Your task to perform on an android device: Open the calendar app, open the side menu, and click the "Day" option Image 0: 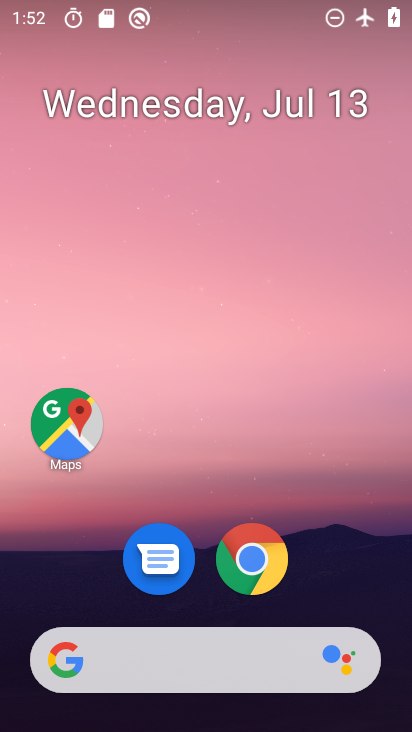
Step 0: drag from (191, 657) to (225, 139)
Your task to perform on an android device: Open the calendar app, open the side menu, and click the "Day" option Image 1: 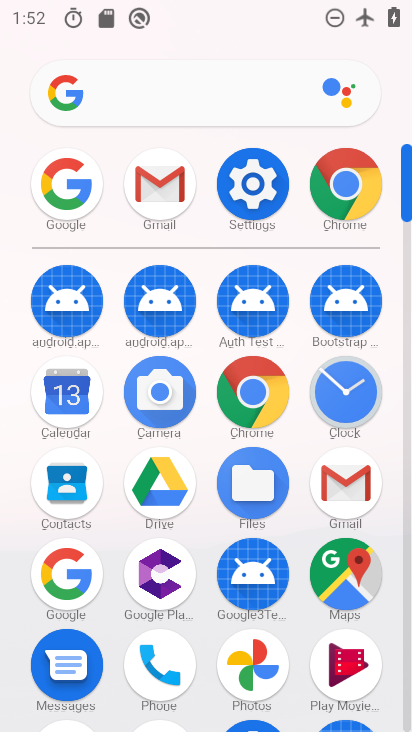
Step 1: click (68, 398)
Your task to perform on an android device: Open the calendar app, open the side menu, and click the "Day" option Image 2: 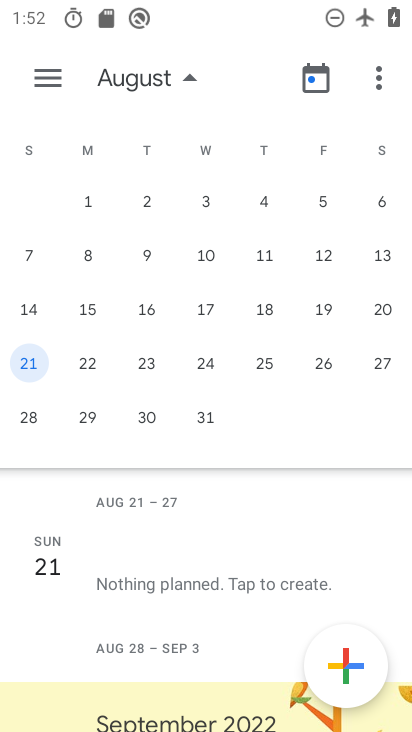
Step 2: drag from (99, 320) to (394, 336)
Your task to perform on an android device: Open the calendar app, open the side menu, and click the "Day" option Image 3: 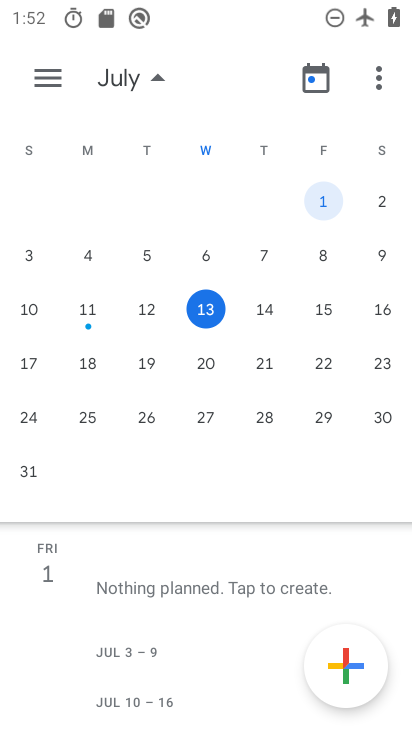
Step 3: click (58, 86)
Your task to perform on an android device: Open the calendar app, open the side menu, and click the "Day" option Image 4: 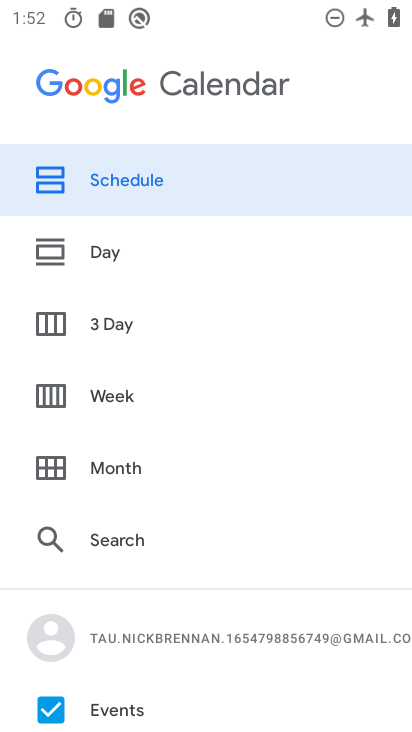
Step 4: click (105, 259)
Your task to perform on an android device: Open the calendar app, open the side menu, and click the "Day" option Image 5: 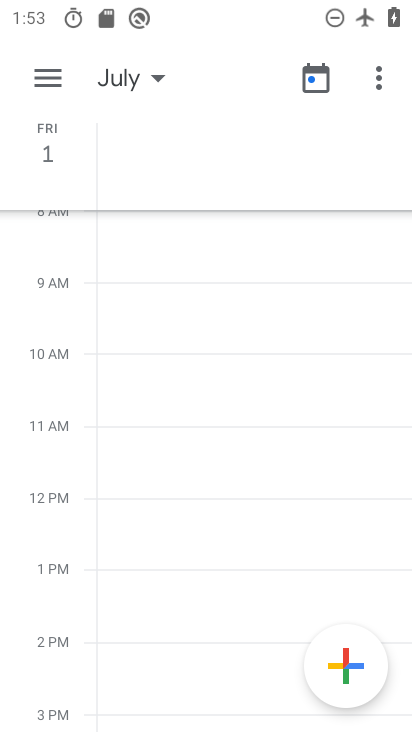
Step 5: task complete